Your task to perform on an android device: turn off sleep mode Image 0: 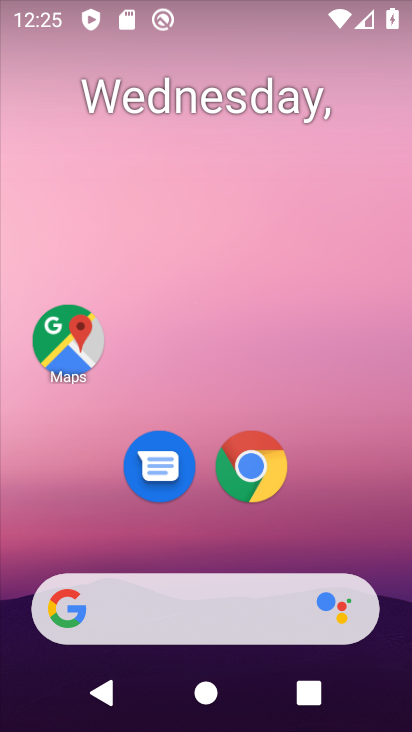
Step 0: press home button
Your task to perform on an android device: turn off sleep mode Image 1: 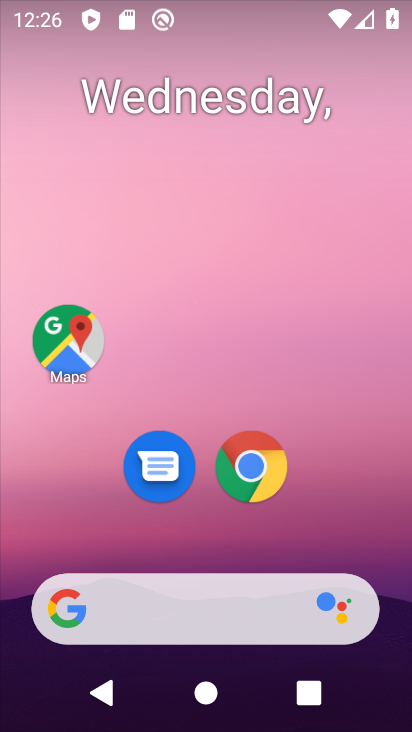
Step 1: drag from (389, 600) to (355, 8)
Your task to perform on an android device: turn off sleep mode Image 2: 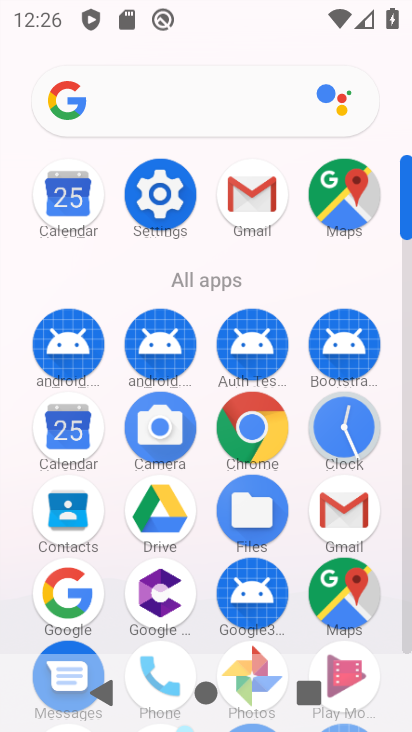
Step 2: click (404, 645)
Your task to perform on an android device: turn off sleep mode Image 3: 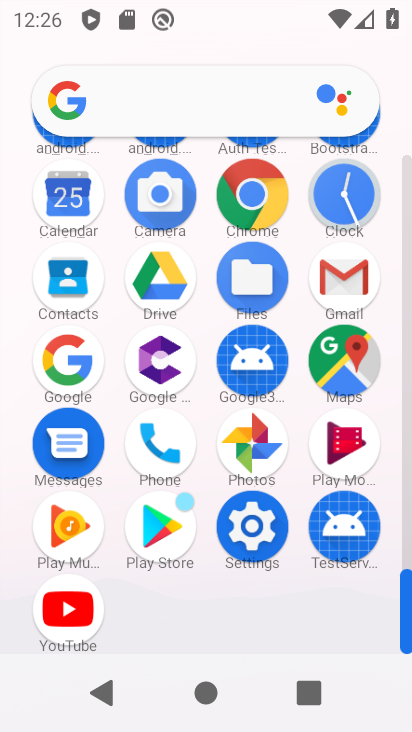
Step 3: click (240, 544)
Your task to perform on an android device: turn off sleep mode Image 4: 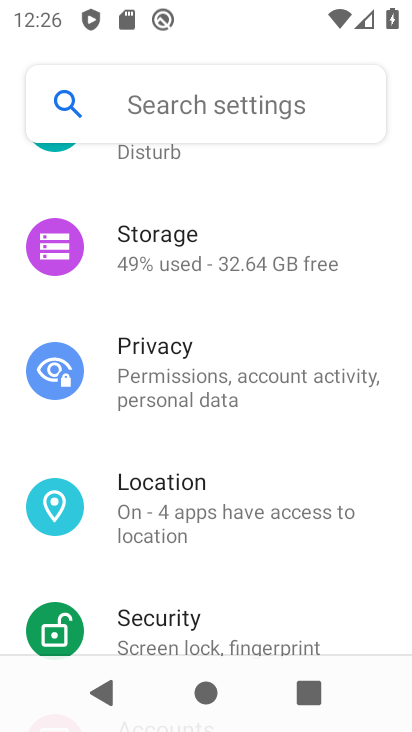
Step 4: drag from (217, 241) to (237, 671)
Your task to perform on an android device: turn off sleep mode Image 5: 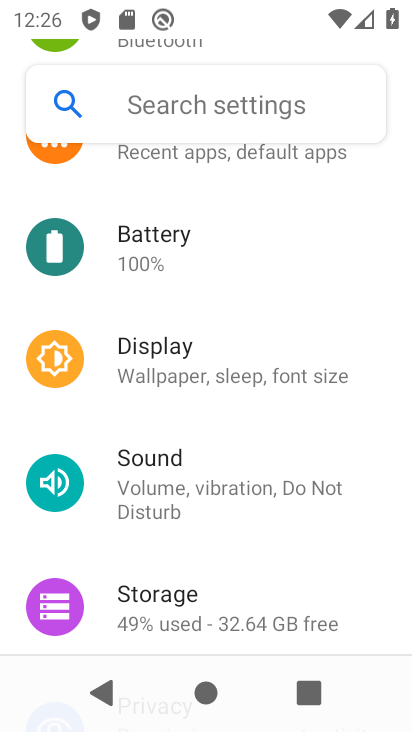
Step 5: drag from (225, 244) to (206, 662)
Your task to perform on an android device: turn off sleep mode Image 6: 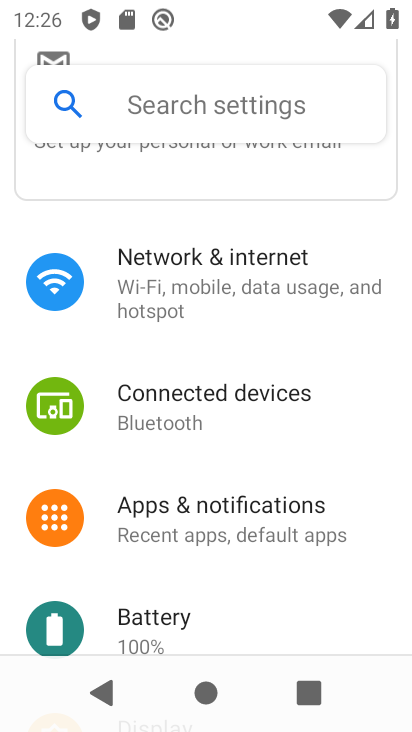
Step 6: drag from (216, 639) to (251, 352)
Your task to perform on an android device: turn off sleep mode Image 7: 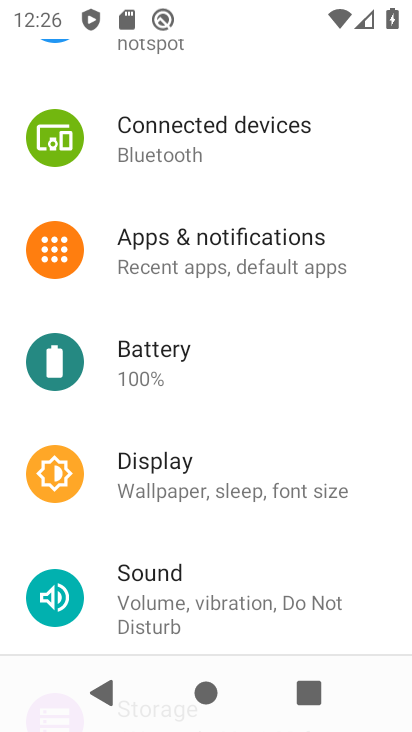
Step 7: drag from (229, 560) to (268, 211)
Your task to perform on an android device: turn off sleep mode Image 8: 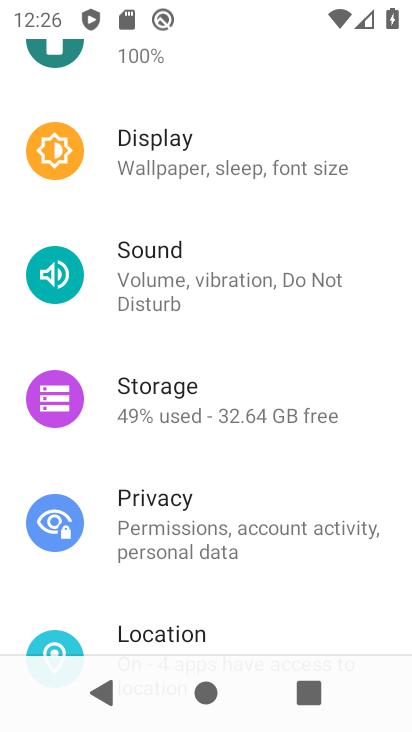
Step 8: drag from (264, 525) to (235, 222)
Your task to perform on an android device: turn off sleep mode Image 9: 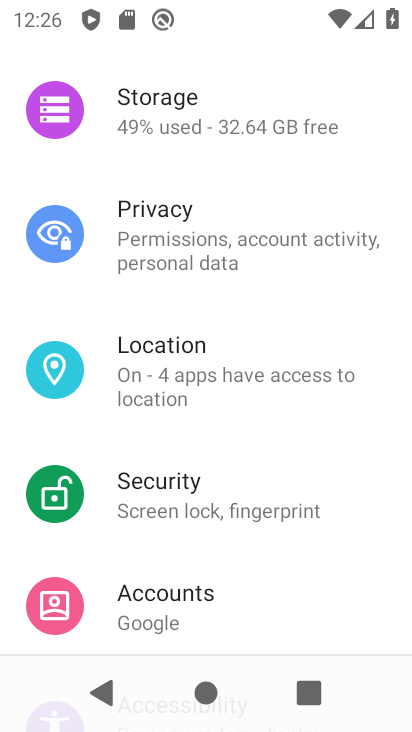
Step 9: drag from (188, 511) to (240, 147)
Your task to perform on an android device: turn off sleep mode Image 10: 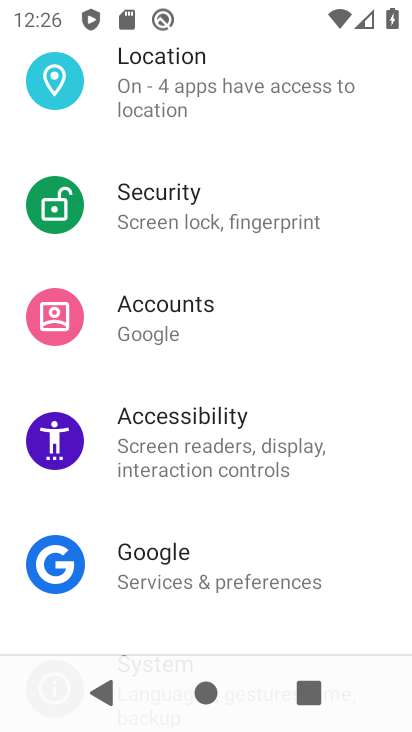
Step 10: drag from (214, 497) to (184, 724)
Your task to perform on an android device: turn off sleep mode Image 11: 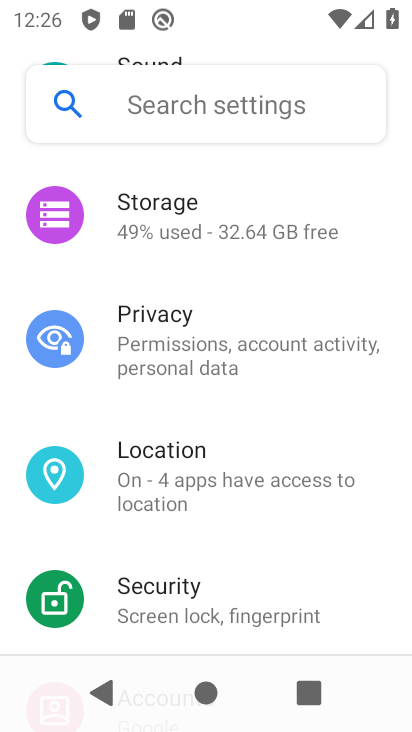
Step 11: drag from (202, 187) to (140, 719)
Your task to perform on an android device: turn off sleep mode Image 12: 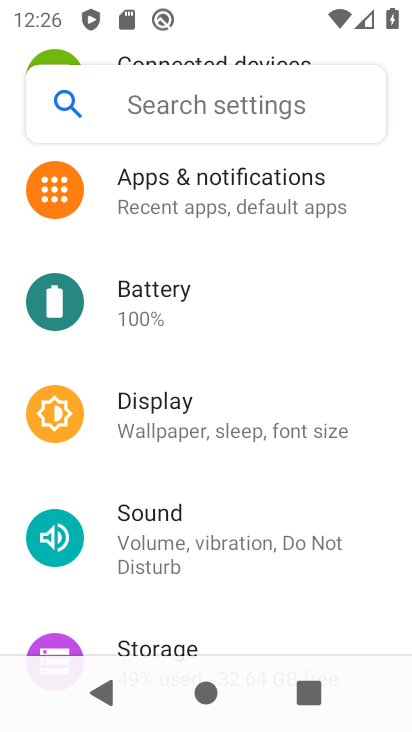
Step 12: click (176, 429)
Your task to perform on an android device: turn off sleep mode Image 13: 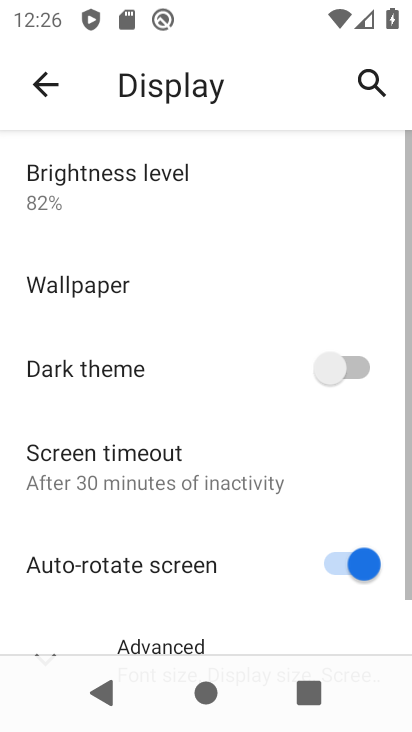
Step 13: task complete